Your task to perform on an android device: Open CNN.com Image 0: 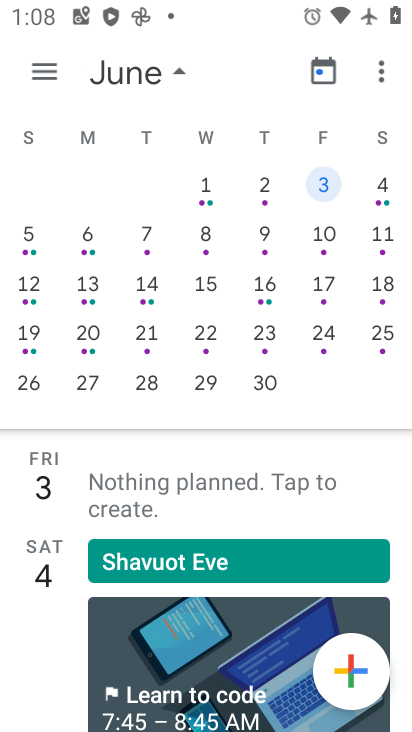
Step 0: press home button
Your task to perform on an android device: Open CNN.com Image 1: 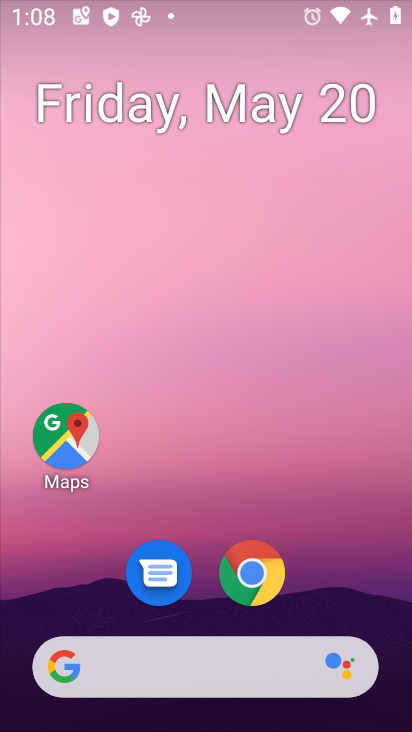
Step 1: drag from (330, 572) to (312, 116)
Your task to perform on an android device: Open CNN.com Image 2: 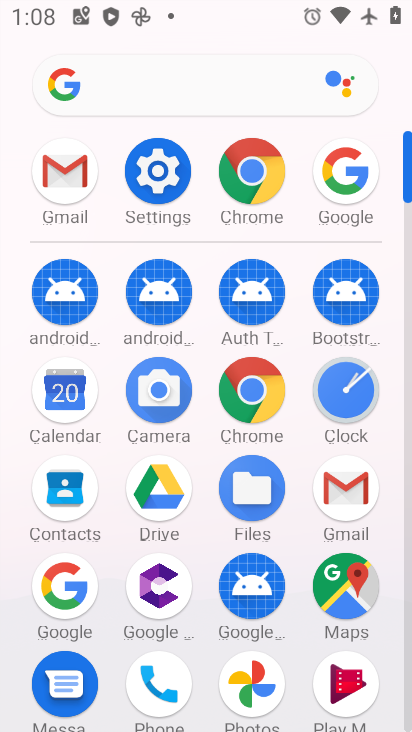
Step 2: click (357, 170)
Your task to perform on an android device: Open CNN.com Image 3: 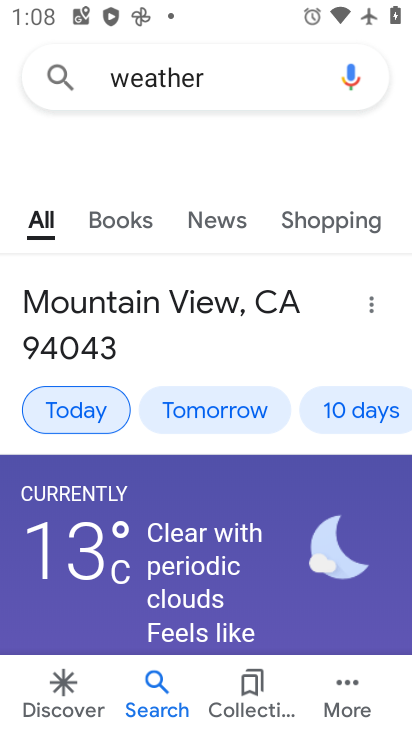
Step 3: click (250, 77)
Your task to perform on an android device: Open CNN.com Image 4: 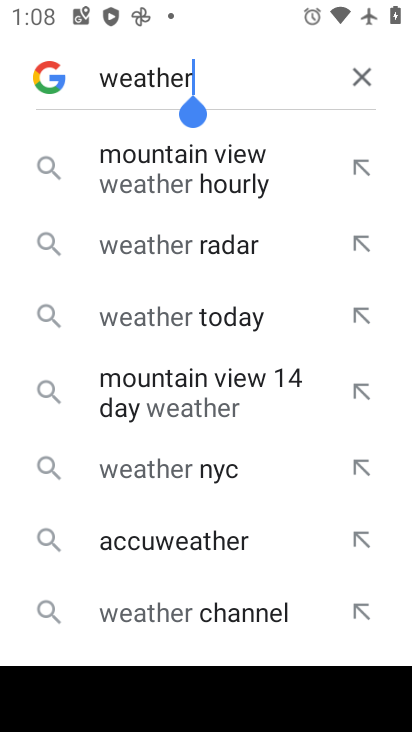
Step 4: click (360, 72)
Your task to perform on an android device: Open CNN.com Image 5: 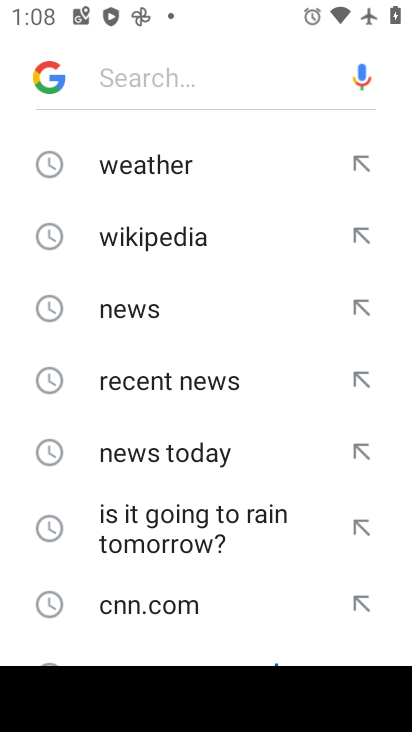
Step 5: drag from (217, 508) to (225, 355)
Your task to perform on an android device: Open CNN.com Image 6: 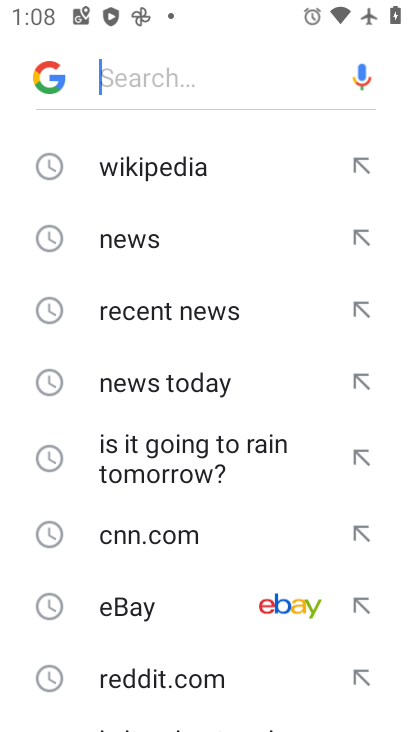
Step 6: click (167, 529)
Your task to perform on an android device: Open CNN.com Image 7: 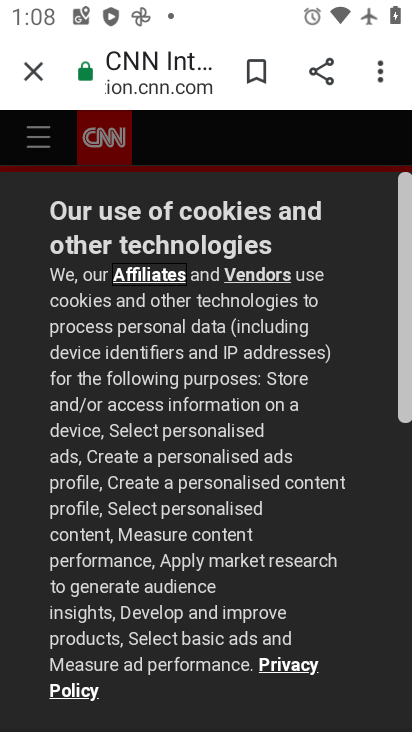
Step 7: task complete